Your task to perform on an android device: Go to privacy settings Image 0: 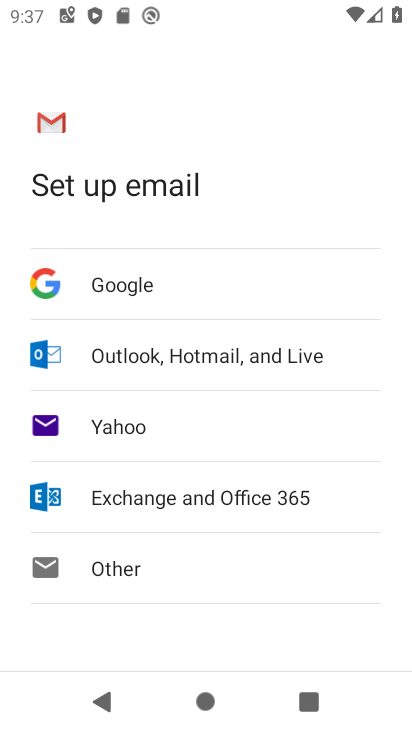
Step 0: press home button
Your task to perform on an android device: Go to privacy settings Image 1: 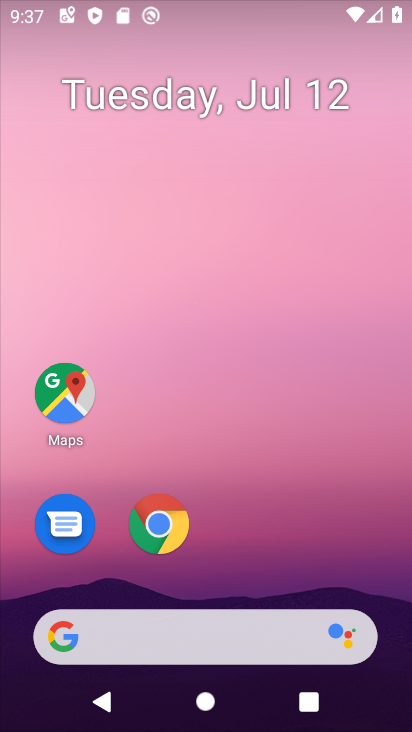
Step 1: drag from (287, 548) to (258, 64)
Your task to perform on an android device: Go to privacy settings Image 2: 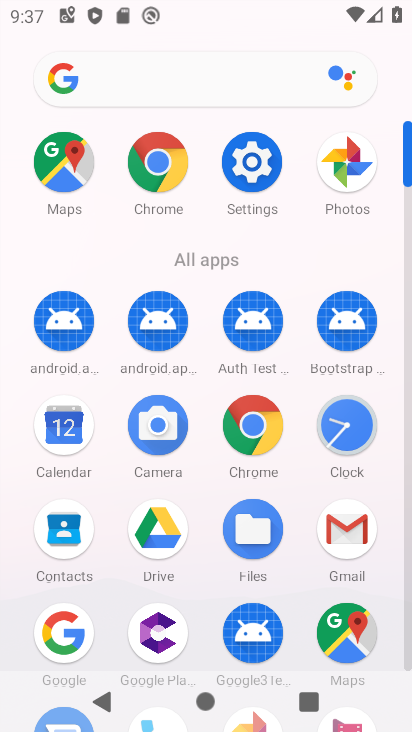
Step 2: click (262, 160)
Your task to perform on an android device: Go to privacy settings Image 3: 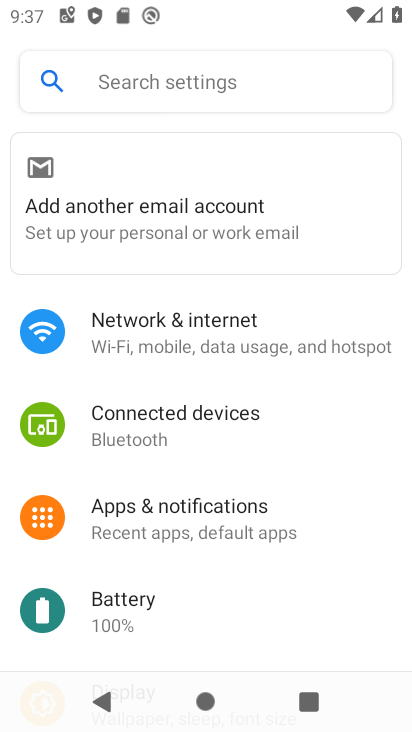
Step 3: drag from (210, 570) to (254, 3)
Your task to perform on an android device: Go to privacy settings Image 4: 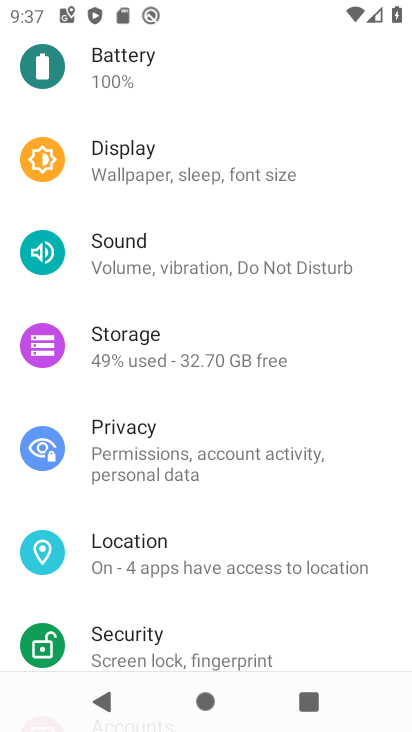
Step 4: click (196, 451)
Your task to perform on an android device: Go to privacy settings Image 5: 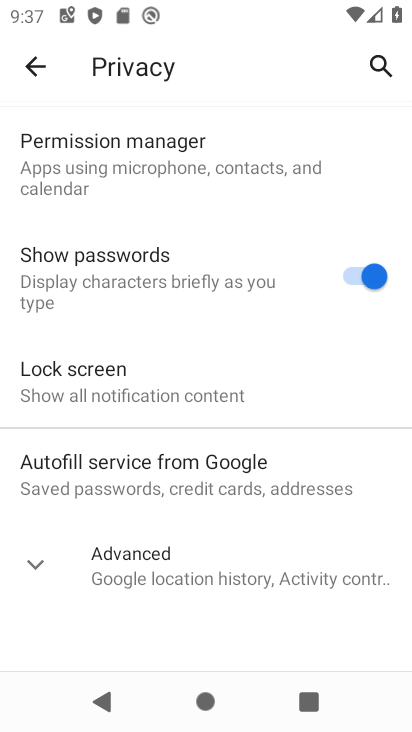
Step 5: click (34, 561)
Your task to perform on an android device: Go to privacy settings Image 6: 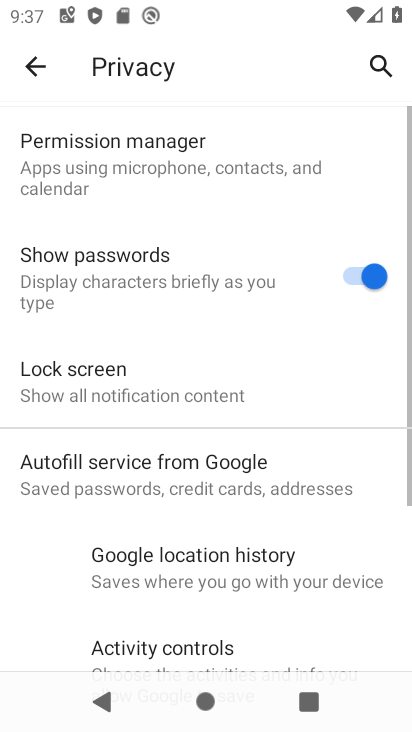
Step 6: task complete